Your task to perform on an android device: change the clock display to analog Image 0: 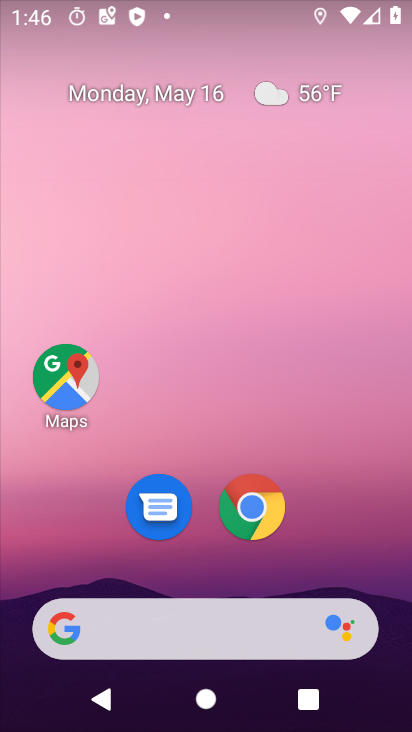
Step 0: drag from (225, 552) to (233, 98)
Your task to perform on an android device: change the clock display to analog Image 1: 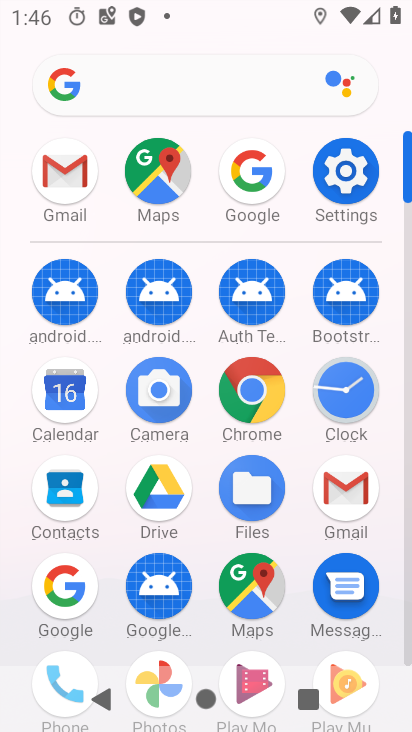
Step 1: click (343, 394)
Your task to perform on an android device: change the clock display to analog Image 2: 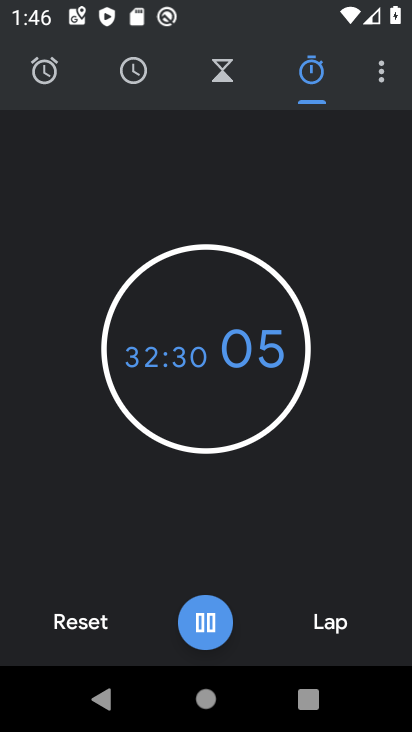
Step 2: click (367, 68)
Your task to perform on an android device: change the clock display to analog Image 3: 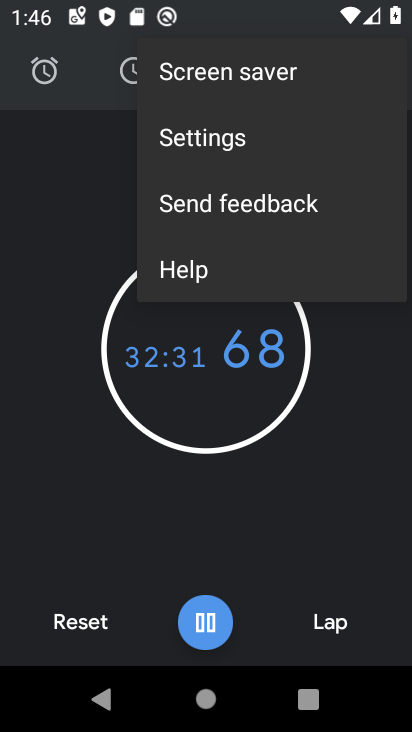
Step 3: click (214, 128)
Your task to perform on an android device: change the clock display to analog Image 4: 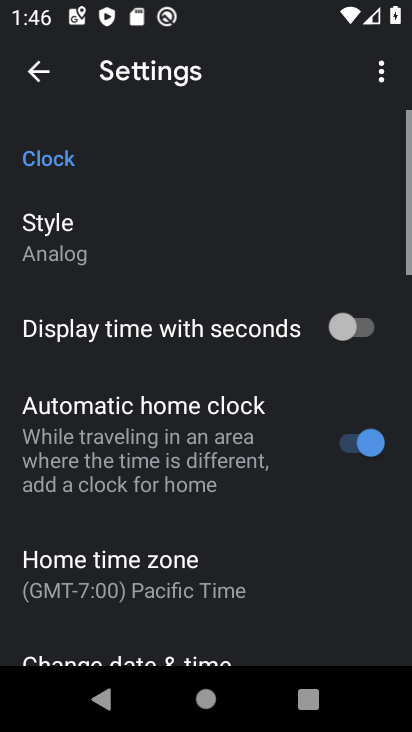
Step 4: click (115, 268)
Your task to perform on an android device: change the clock display to analog Image 5: 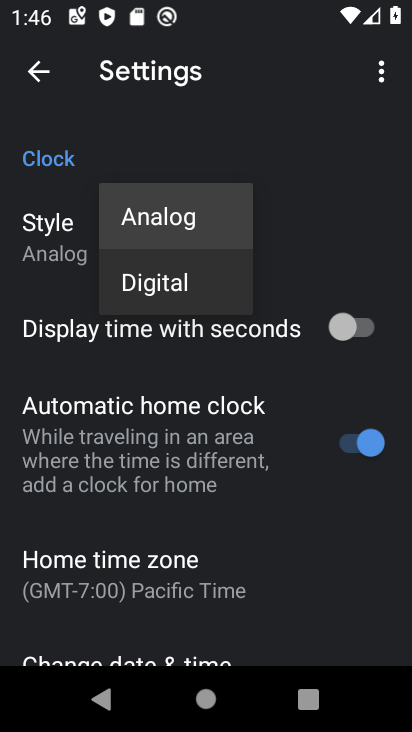
Step 5: task complete